Your task to perform on an android device: toggle data saver in the chrome app Image 0: 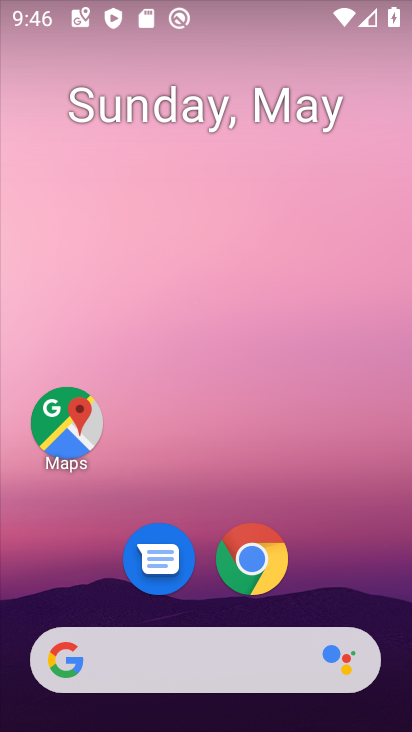
Step 0: click (261, 570)
Your task to perform on an android device: toggle data saver in the chrome app Image 1: 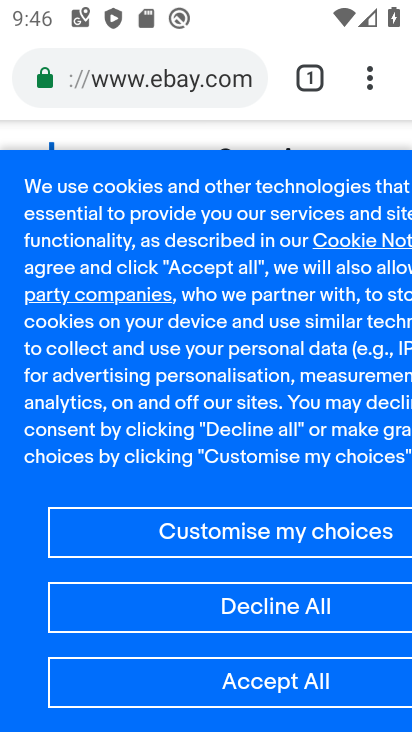
Step 1: click (371, 70)
Your task to perform on an android device: toggle data saver in the chrome app Image 2: 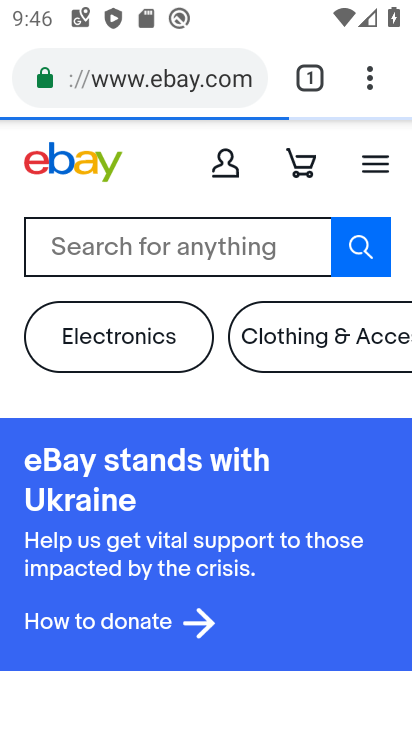
Step 2: drag from (371, 70) to (165, 601)
Your task to perform on an android device: toggle data saver in the chrome app Image 3: 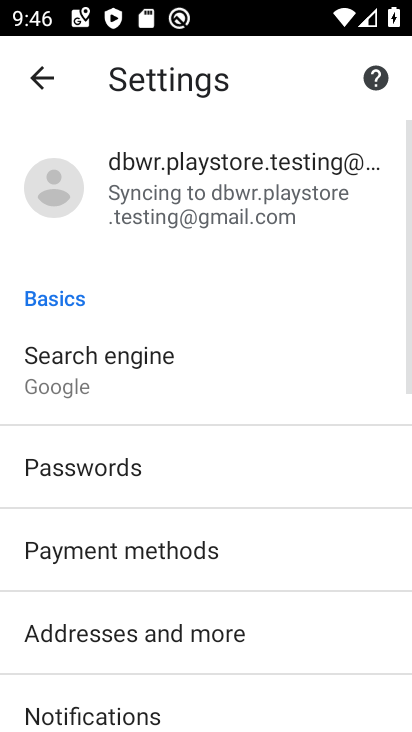
Step 3: drag from (324, 681) to (331, 132)
Your task to perform on an android device: toggle data saver in the chrome app Image 4: 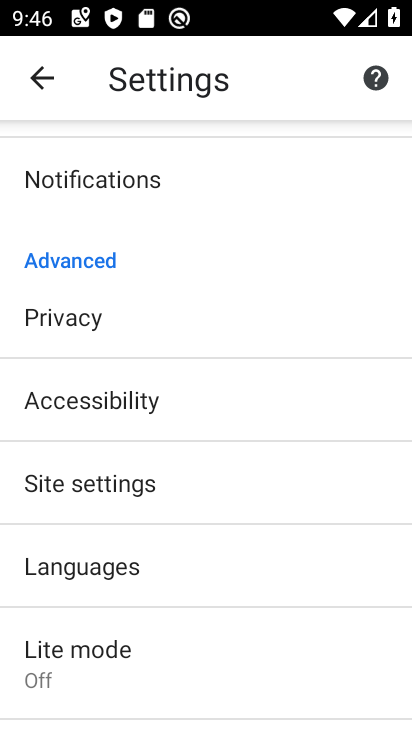
Step 4: click (179, 645)
Your task to perform on an android device: toggle data saver in the chrome app Image 5: 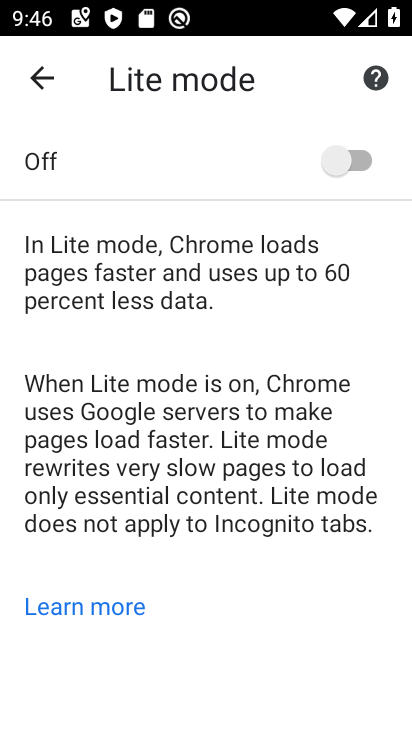
Step 5: click (361, 159)
Your task to perform on an android device: toggle data saver in the chrome app Image 6: 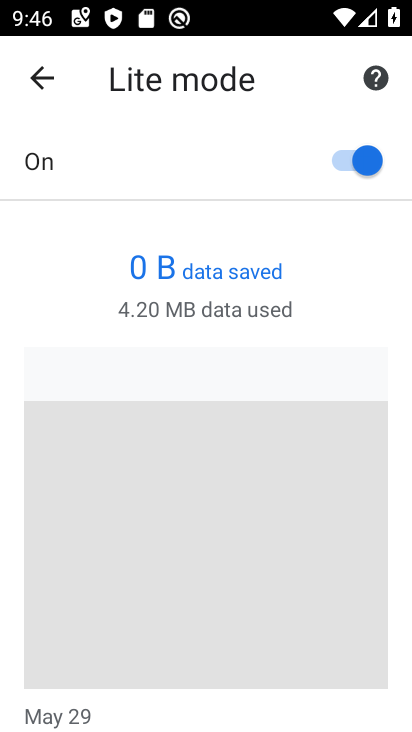
Step 6: task complete